Your task to perform on an android device: turn off improve location accuracy Image 0: 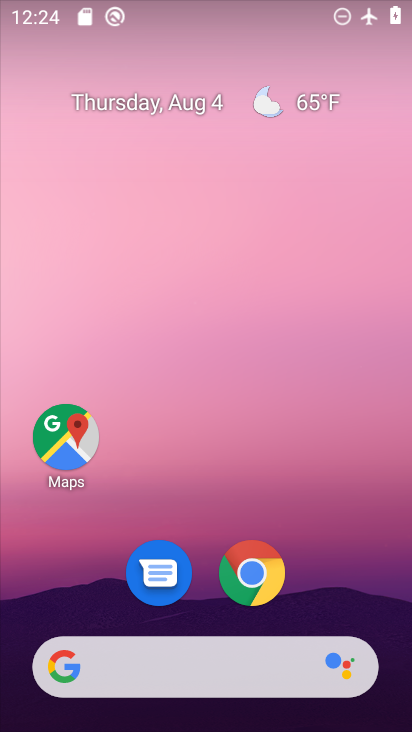
Step 0: drag from (351, 510) to (334, 75)
Your task to perform on an android device: turn off improve location accuracy Image 1: 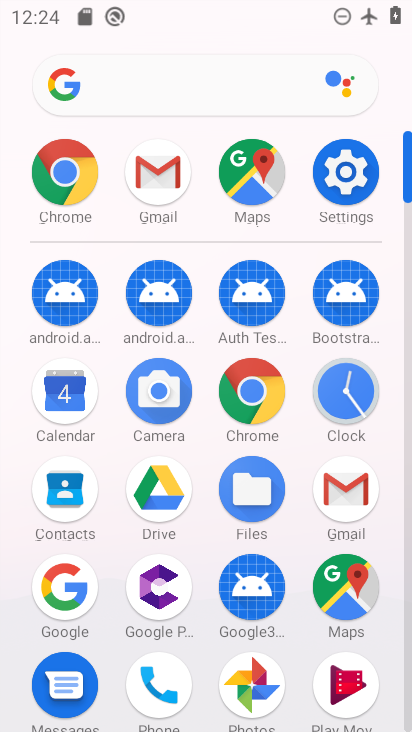
Step 1: click (370, 170)
Your task to perform on an android device: turn off improve location accuracy Image 2: 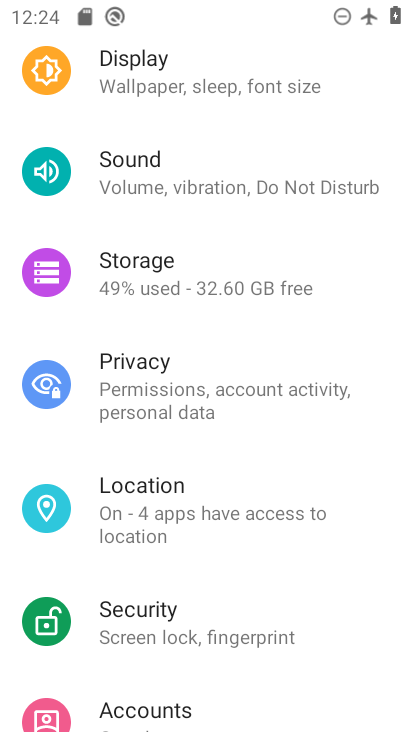
Step 2: click (265, 525)
Your task to perform on an android device: turn off improve location accuracy Image 3: 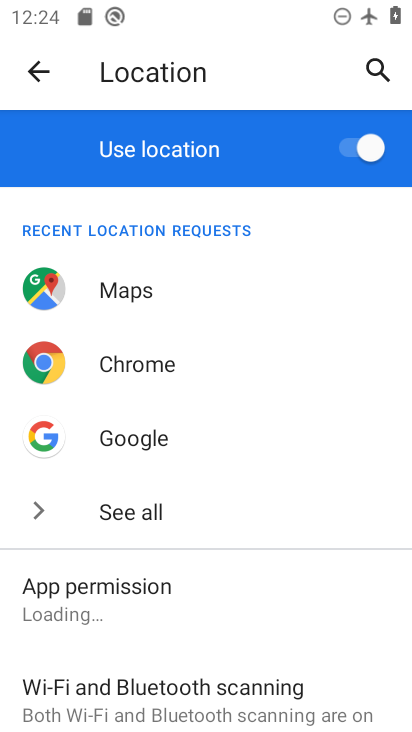
Step 3: drag from (300, 581) to (301, 243)
Your task to perform on an android device: turn off improve location accuracy Image 4: 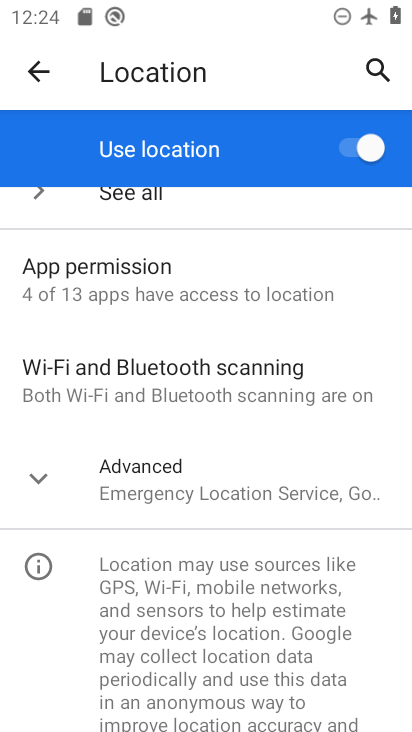
Step 4: click (174, 509)
Your task to perform on an android device: turn off improve location accuracy Image 5: 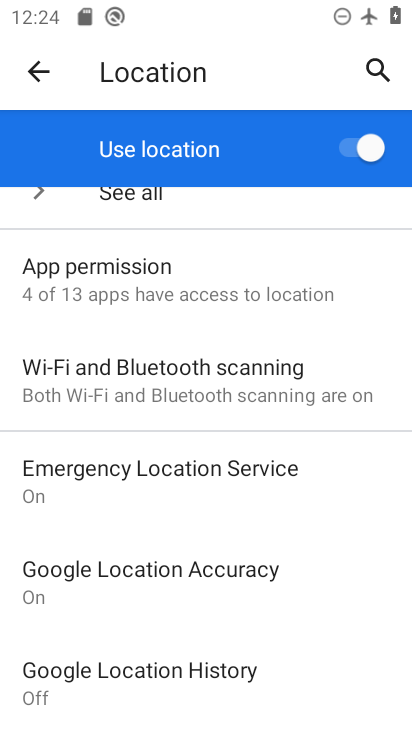
Step 5: click (233, 569)
Your task to perform on an android device: turn off improve location accuracy Image 6: 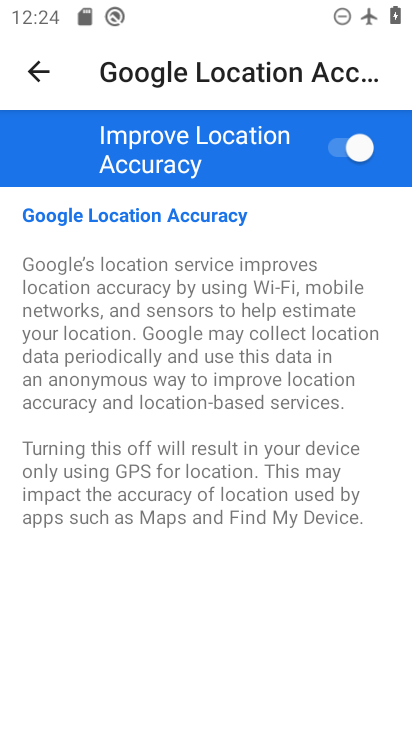
Step 6: click (376, 154)
Your task to perform on an android device: turn off improve location accuracy Image 7: 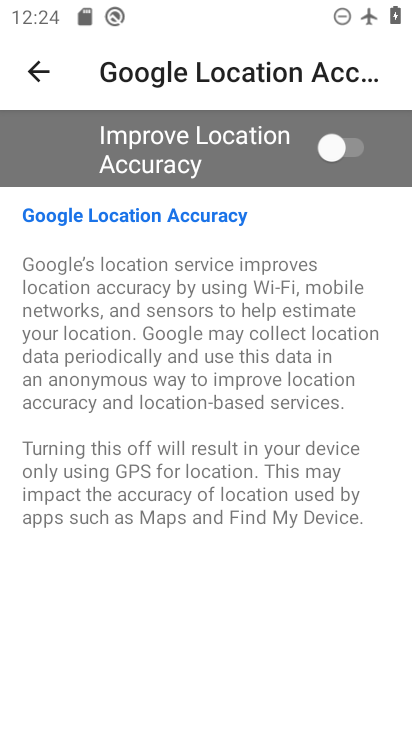
Step 7: task complete